Your task to perform on an android device: Go to Yahoo.com Image 0: 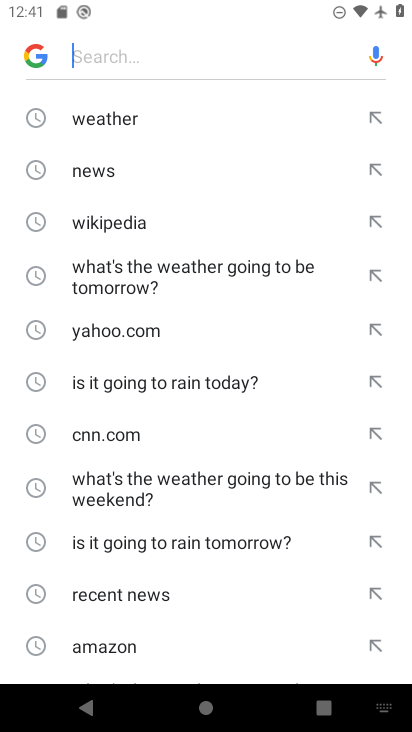
Step 0: click (118, 334)
Your task to perform on an android device: Go to Yahoo.com Image 1: 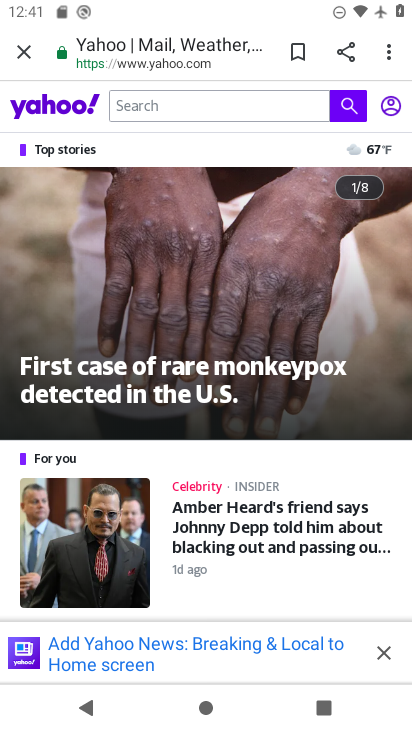
Step 1: task complete